Your task to perform on an android device: clear history in the chrome app Image 0: 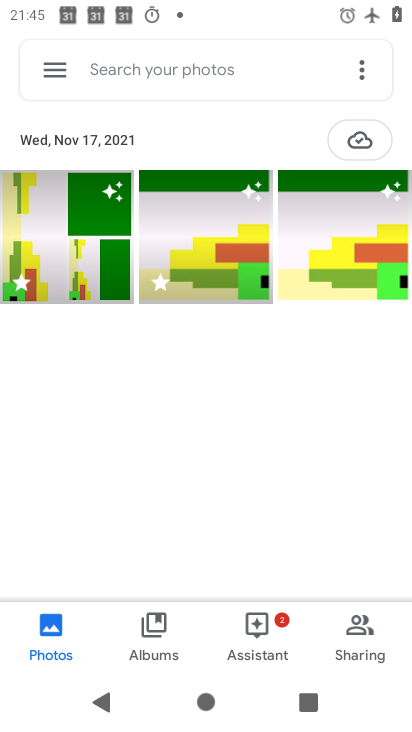
Step 0: press home button
Your task to perform on an android device: clear history in the chrome app Image 1: 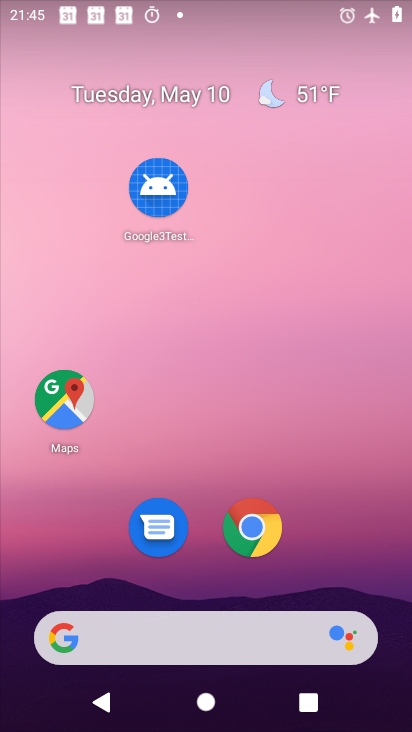
Step 1: click (253, 528)
Your task to perform on an android device: clear history in the chrome app Image 2: 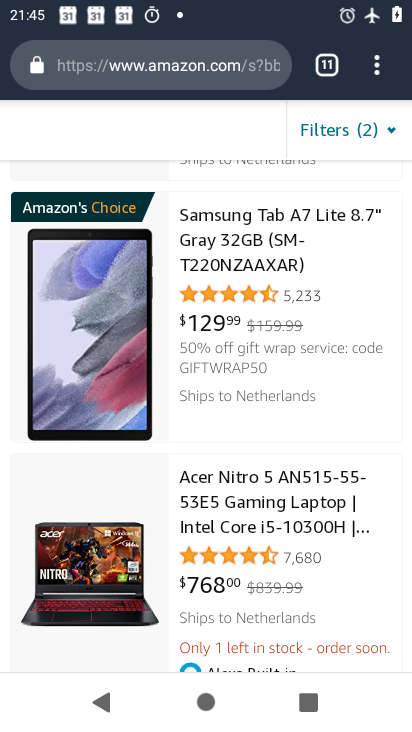
Step 2: task complete